Your task to perform on an android device: open app "Microsoft Excel" (install if not already installed) Image 0: 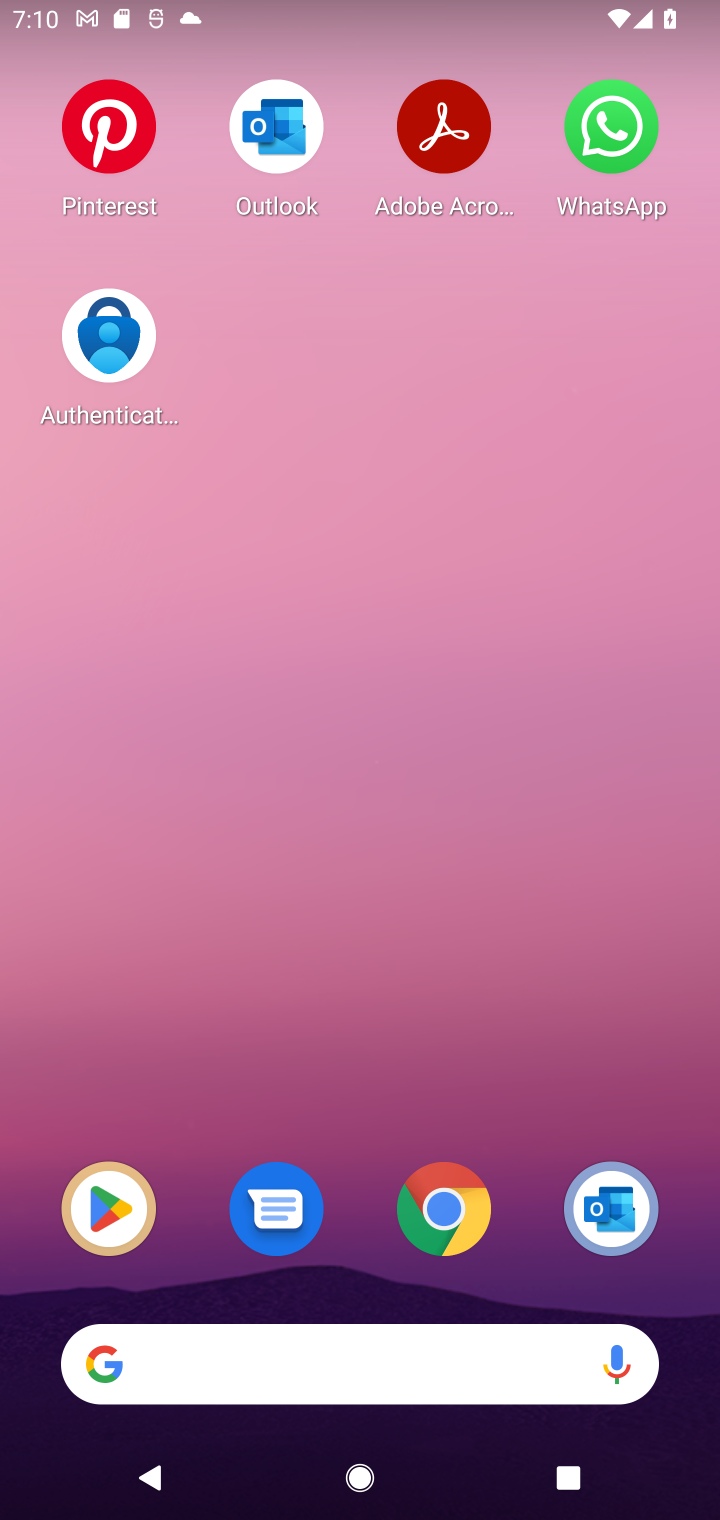
Step 0: drag from (410, 1508) to (412, 649)
Your task to perform on an android device: open app "Microsoft Excel" (install if not already installed) Image 1: 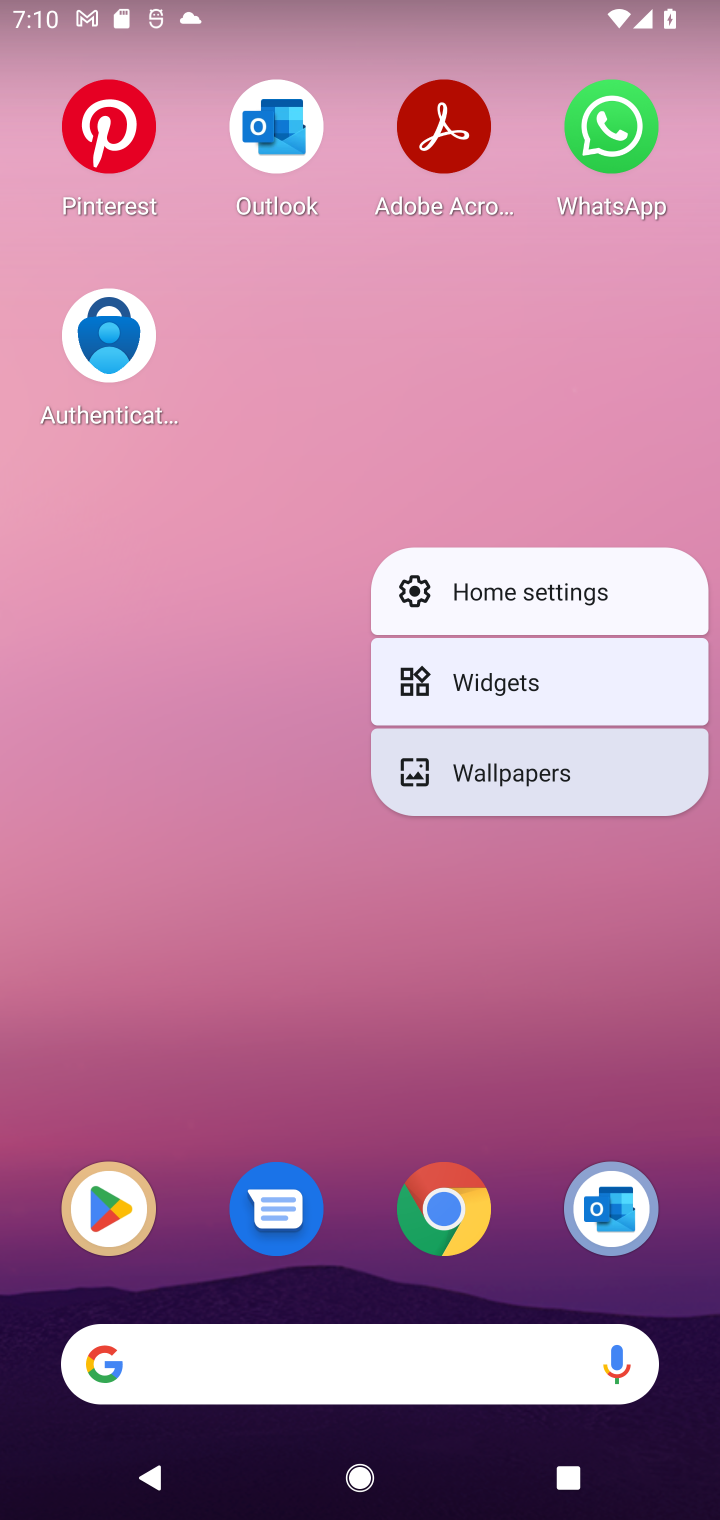
Step 1: click (378, 1072)
Your task to perform on an android device: open app "Microsoft Excel" (install if not already installed) Image 2: 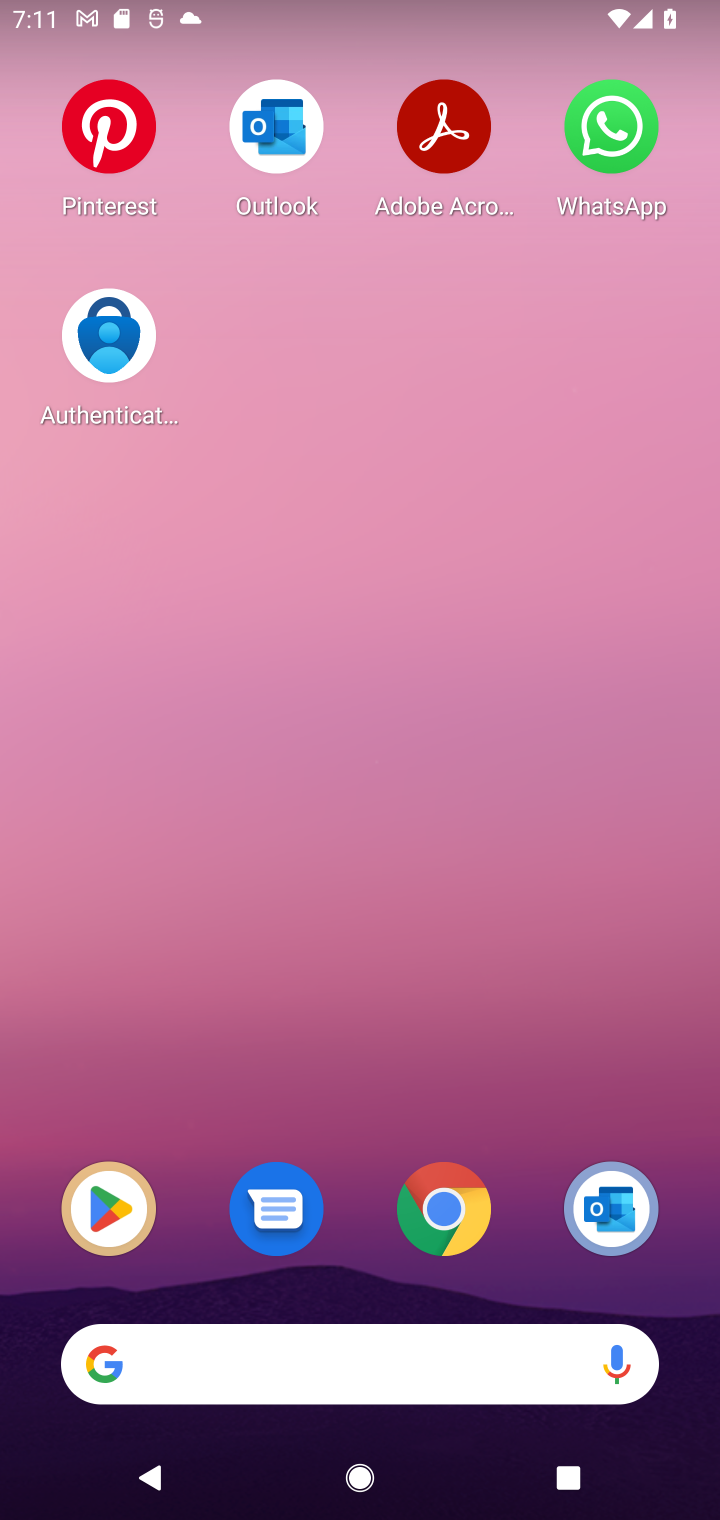
Step 2: drag from (415, 1294) to (415, 477)
Your task to perform on an android device: open app "Microsoft Excel" (install if not already installed) Image 3: 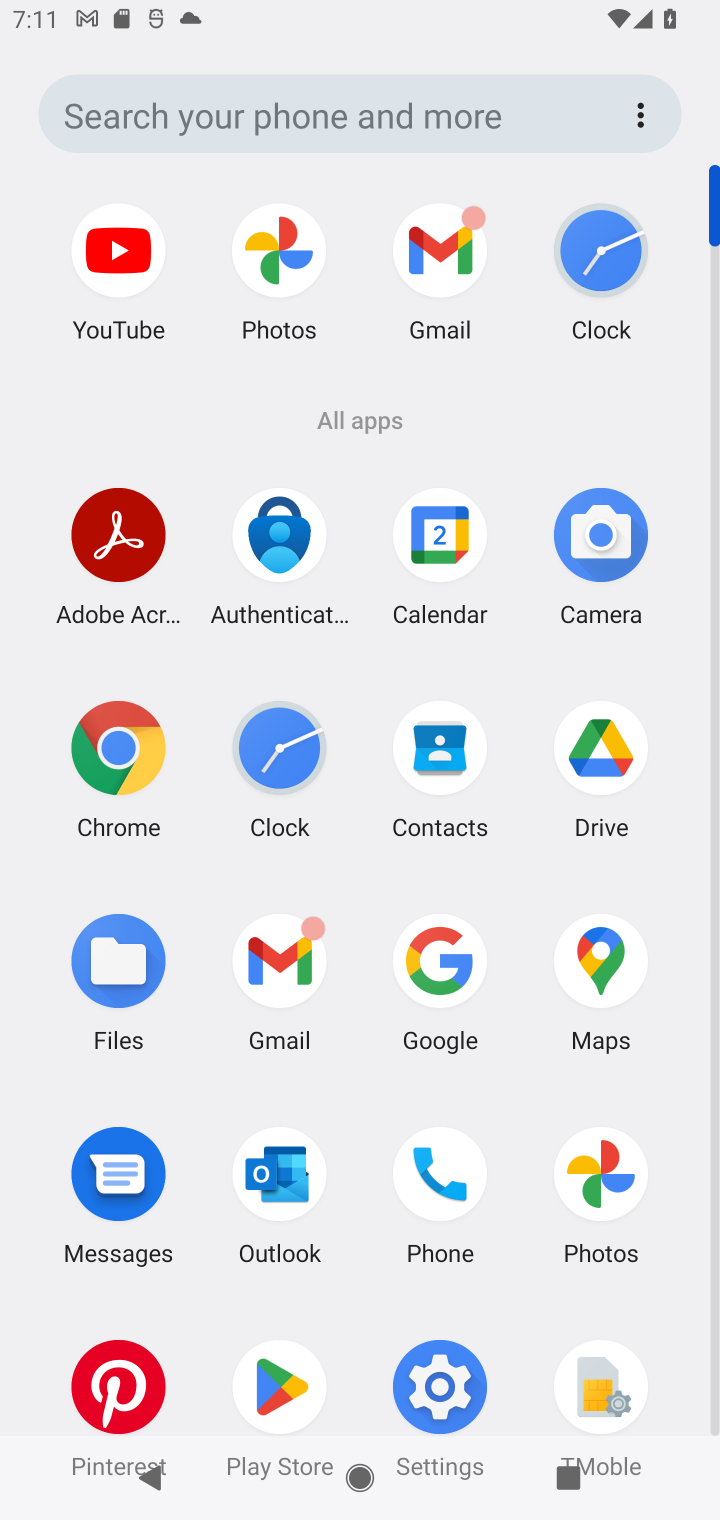
Step 3: click (260, 1383)
Your task to perform on an android device: open app "Microsoft Excel" (install if not already installed) Image 4: 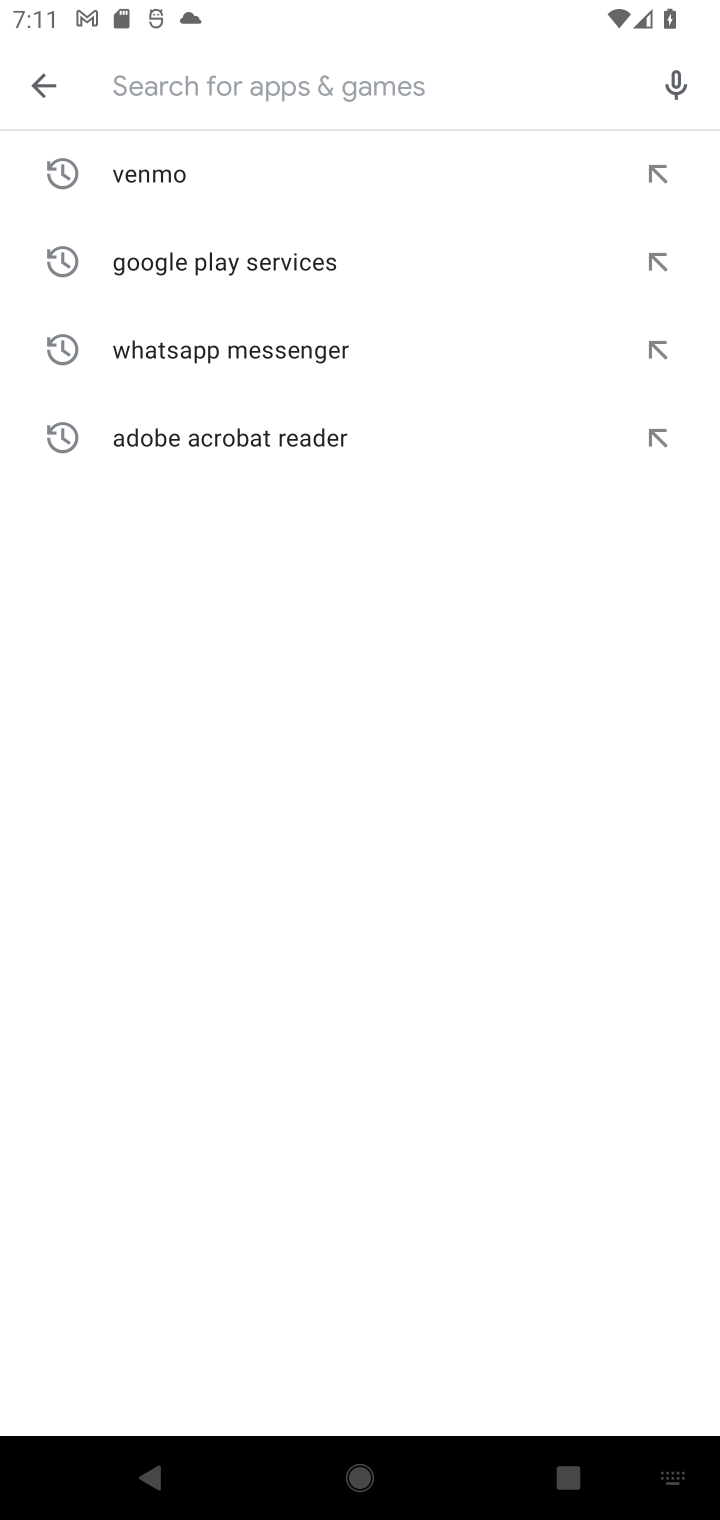
Step 4: type "Microsoft Excel"
Your task to perform on an android device: open app "Microsoft Excel" (install if not already installed) Image 5: 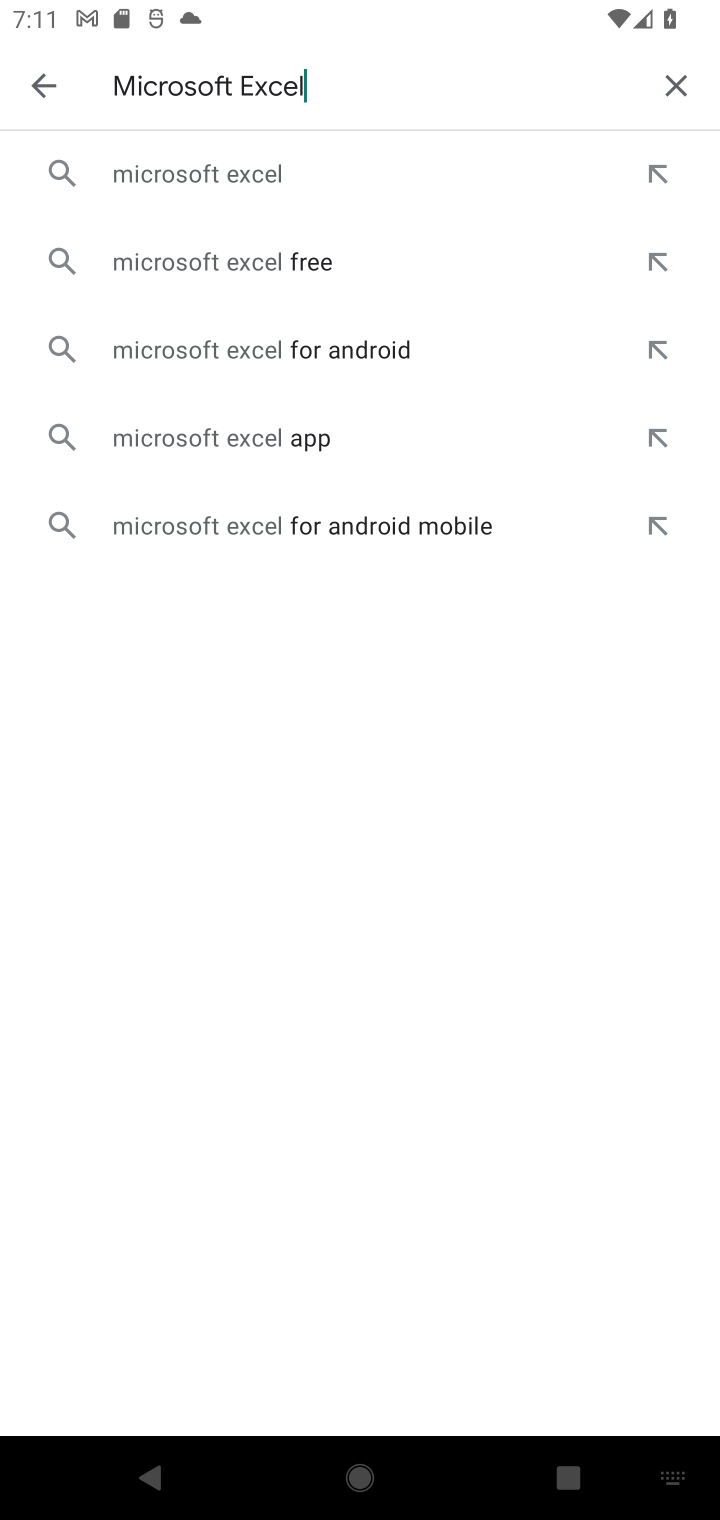
Step 5: click (249, 166)
Your task to perform on an android device: open app "Microsoft Excel" (install if not already installed) Image 6: 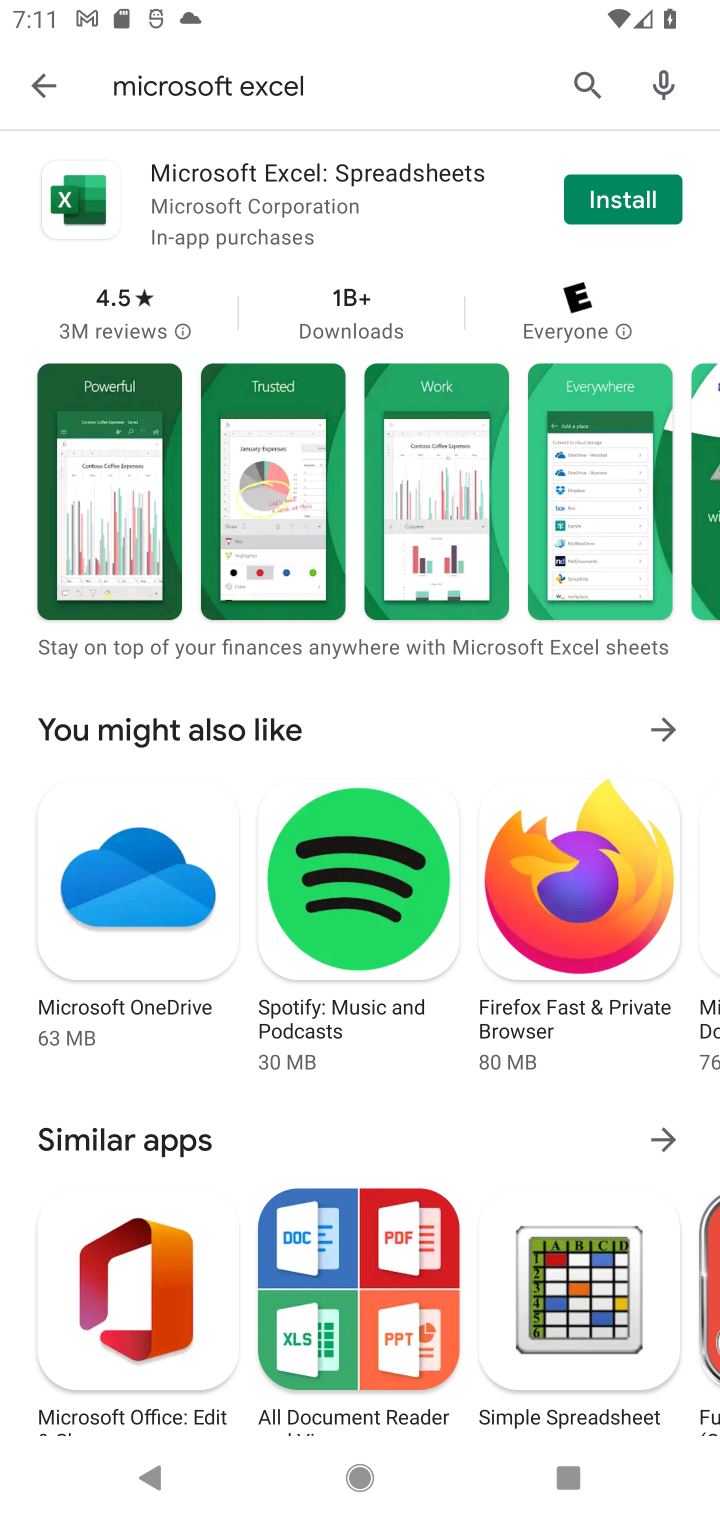
Step 6: click (610, 200)
Your task to perform on an android device: open app "Microsoft Excel" (install if not already installed) Image 7: 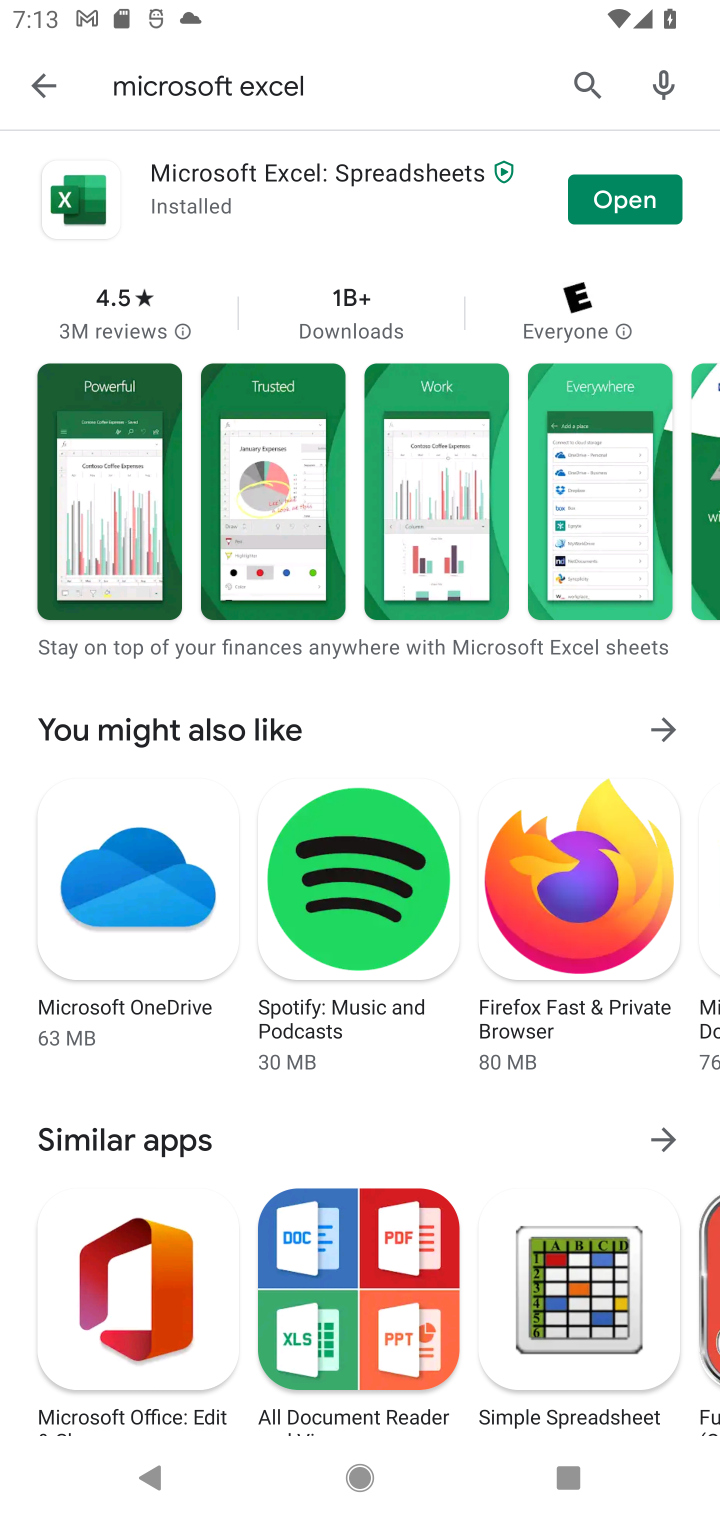
Step 7: click (629, 192)
Your task to perform on an android device: open app "Microsoft Excel" (install if not already installed) Image 8: 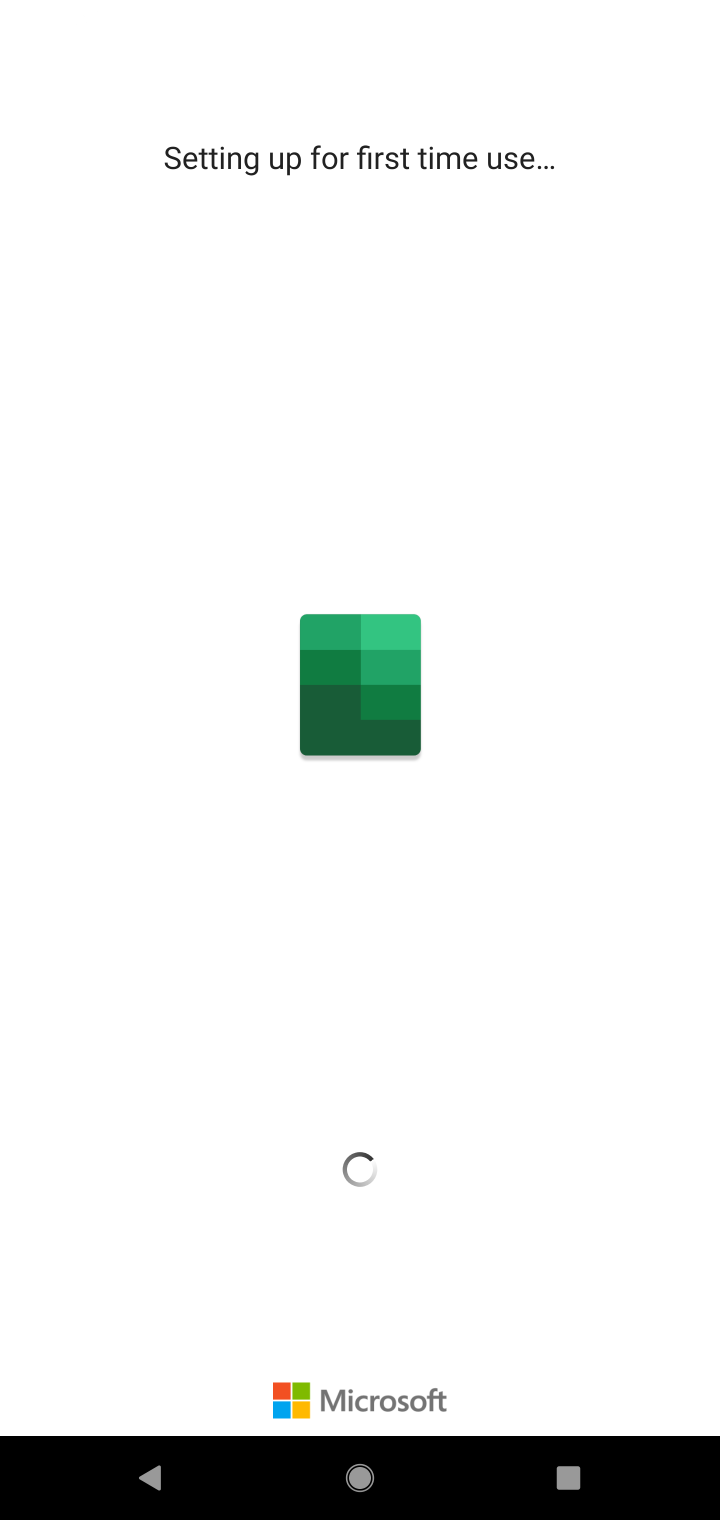
Step 8: task complete